Your task to perform on an android device: open a bookmark in the chrome app Image 0: 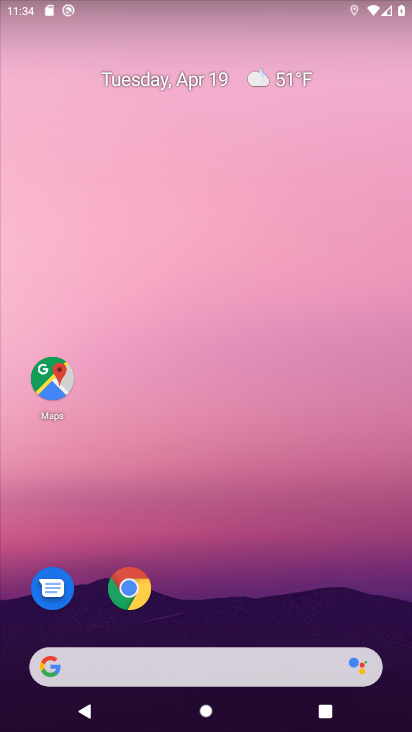
Step 0: drag from (205, 626) to (232, 67)
Your task to perform on an android device: open a bookmark in the chrome app Image 1: 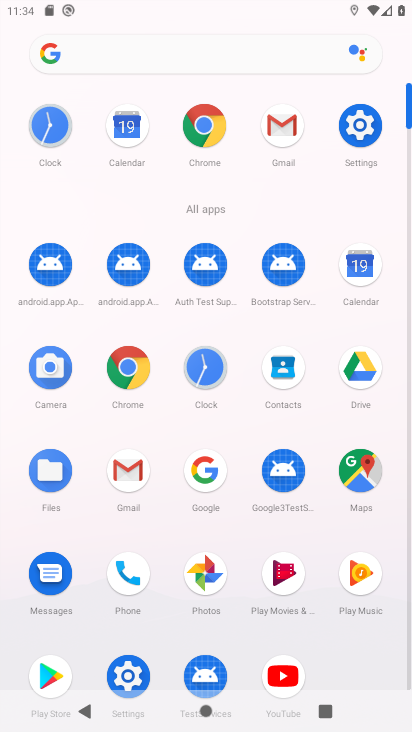
Step 1: click (128, 358)
Your task to perform on an android device: open a bookmark in the chrome app Image 2: 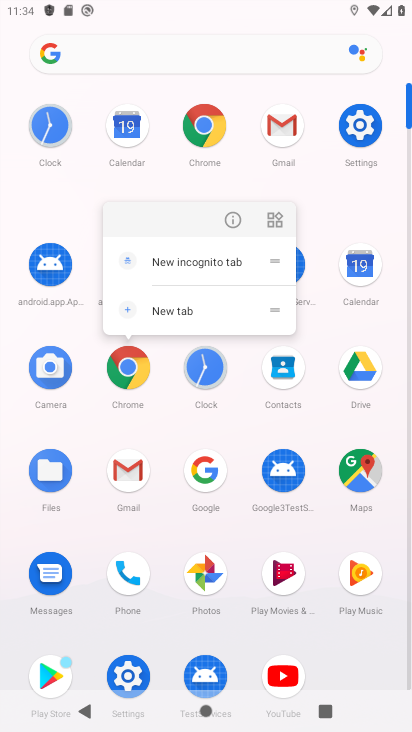
Step 2: click (125, 363)
Your task to perform on an android device: open a bookmark in the chrome app Image 3: 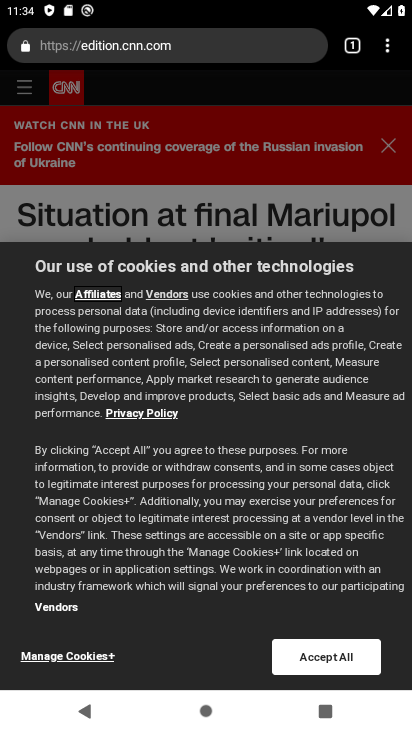
Step 3: click (384, 44)
Your task to perform on an android device: open a bookmark in the chrome app Image 4: 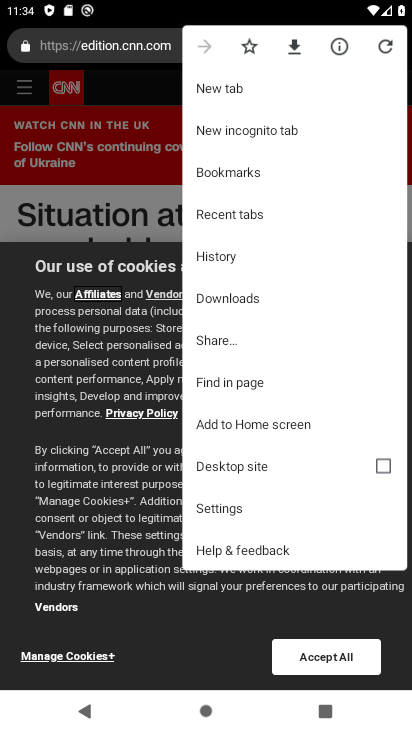
Step 4: click (259, 172)
Your task to perform on an android device: open a bookmark in the chrome app Image 5: 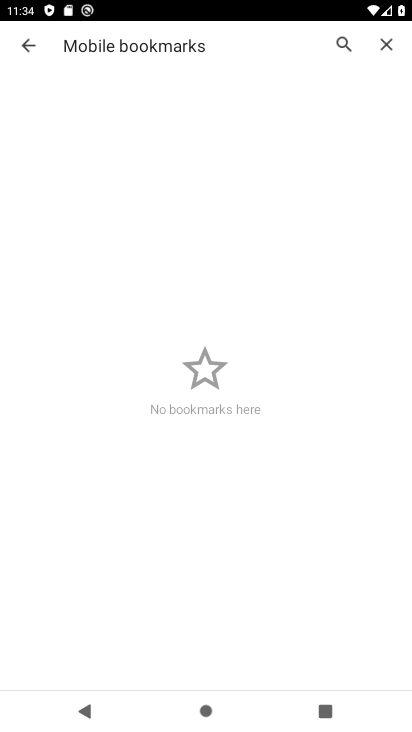
Step 5: task complete